Your task to perform on an android device: Go to accessibility settings Image 0: 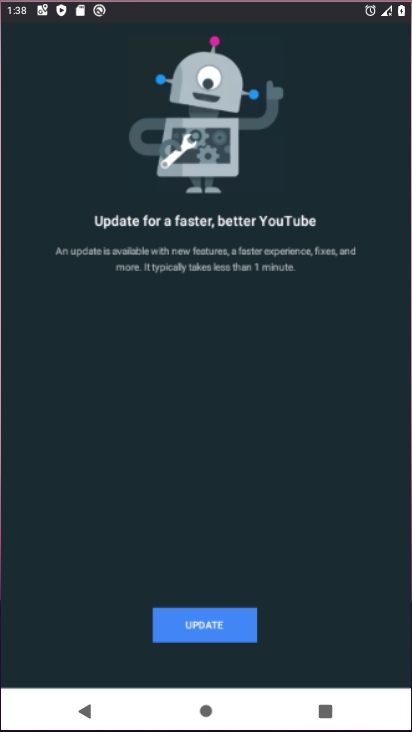
Step 0: drag from (262, 613) to (259, 173)
Your task to perform on an android device: Go to accessibility settings Image 1: 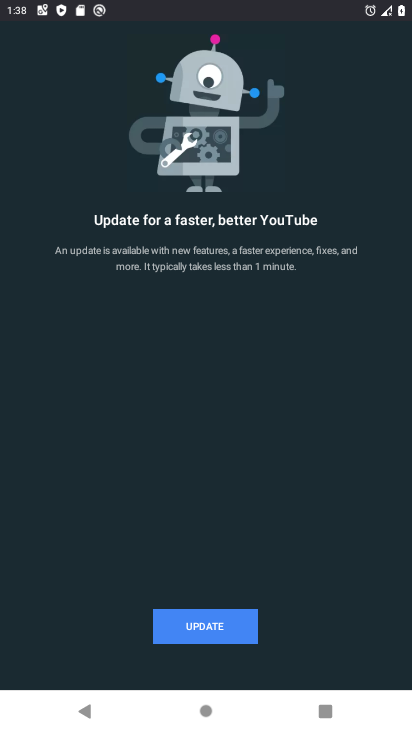
Step 1: press home button
Your task to perform on an android device: Go to accessibility settings Image 2: 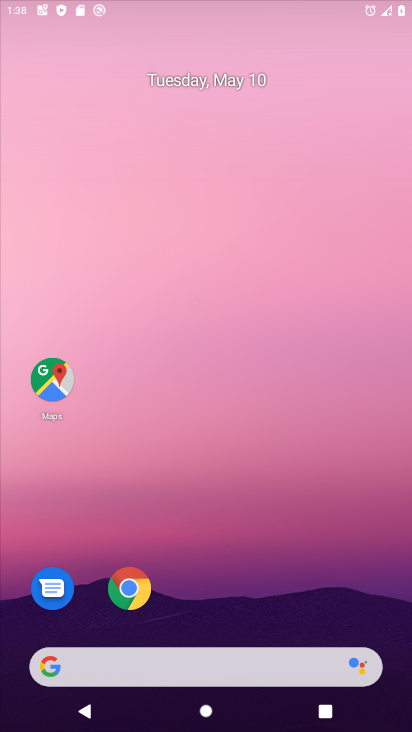
Step 2: drag from (264, 543) to (266, 240)
Your task to perform on an android device: Go to accessibility settings Image 3: 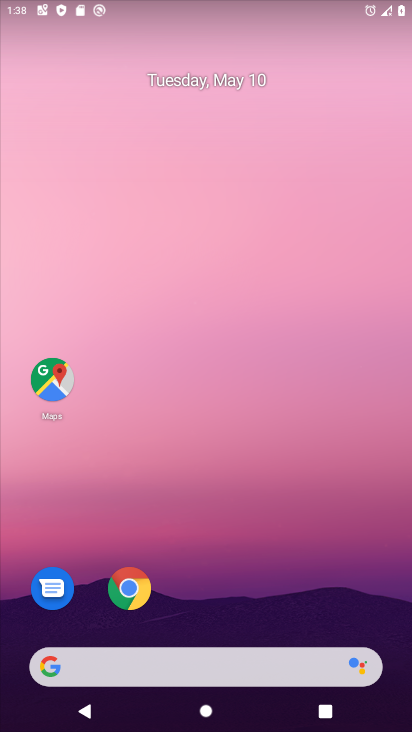
Step 3: drag from (193, 628) to (215, 277)
Your task to perform on an android device: Go to accessibility settings Image 4: 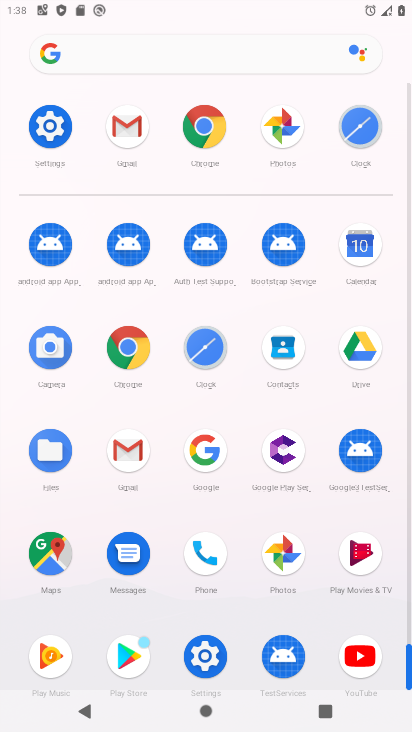
Step 4: click (33, 134)
Your task to perform on an android device: Go to accessibility settings Image 5: 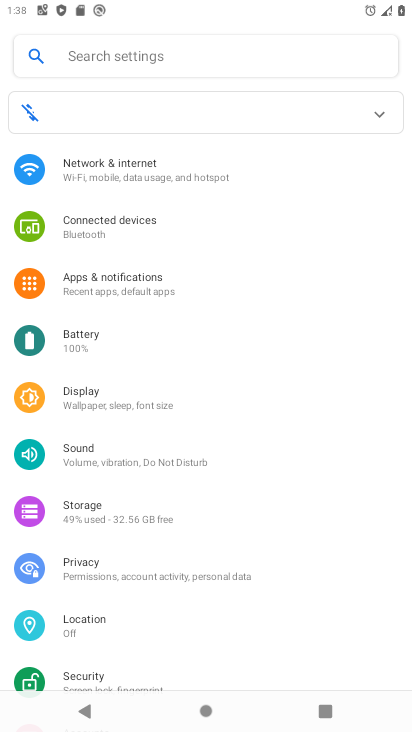
Step 5: drag from (155, 610) to (211, 119)
Your task to perform on an android device: Go to accessibility settings Image 6: 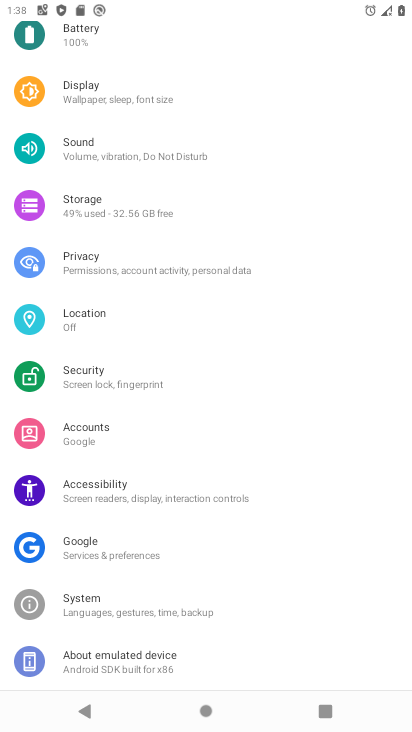
Step 6: click (118, 485)
Your task to perform on an android device: Go to accessibility settings Image 7: 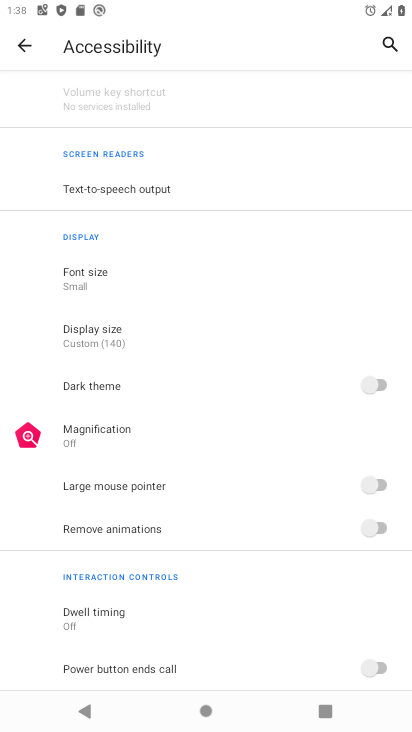
Step 7: task complete